Your task to perform on an android device: Open Amazon Image 0: 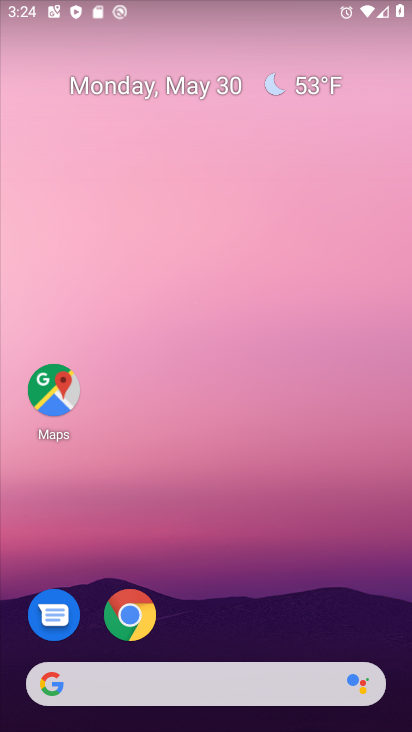
Step 0: click (116, 611)
Your task to perform on an android device: Open Amazon Image 1: 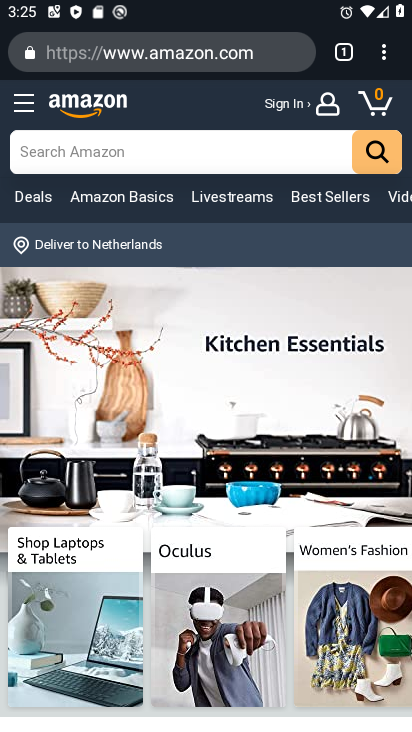
Step 1: task complete